Your task to perform on an android device: Is it going to rain this weekend? Image 0: 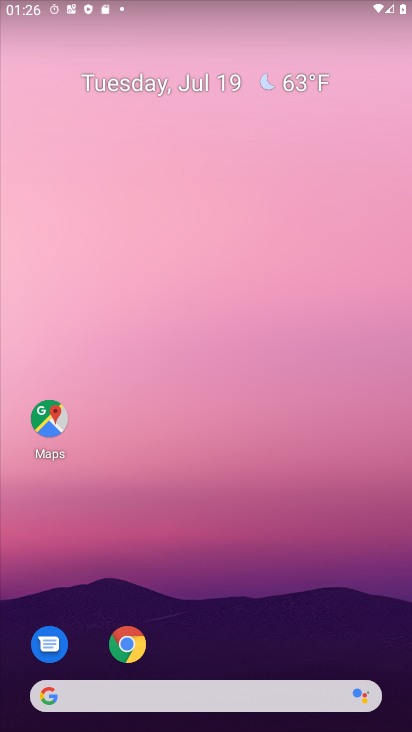
Step 0: drag from (224, 726) to (236, 202)
Your task to perform on an android device: Is it going to rain this weekend? Image 1: 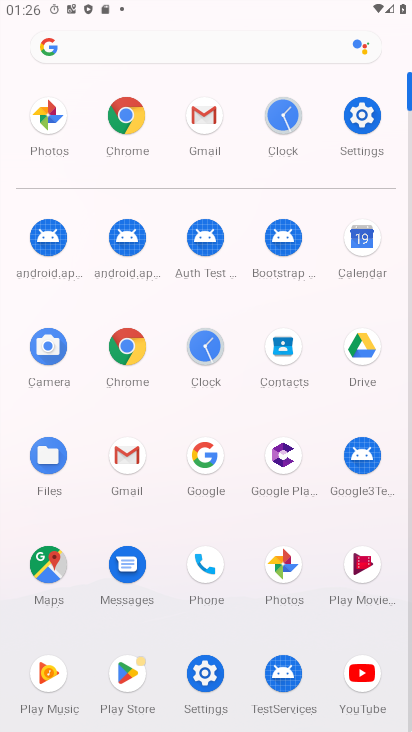
Step 1: click (198, 460)
Your task to perform on an android device: Is it going to rain this weekend? Image 2: 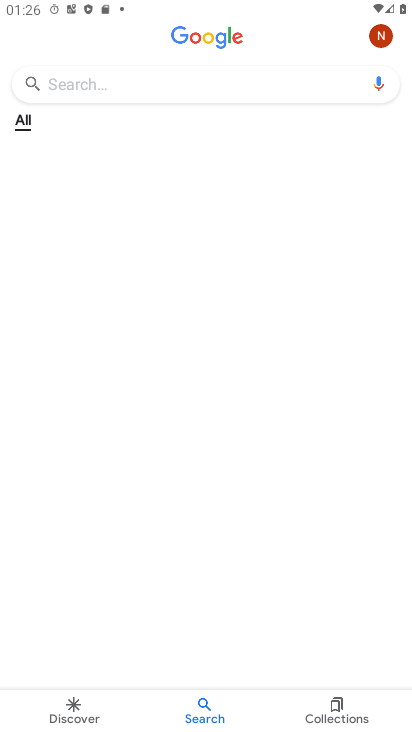
Step 2: click (146, 88)
Your task to perform on an android device: Is it going to rain this weekend? Image 3: 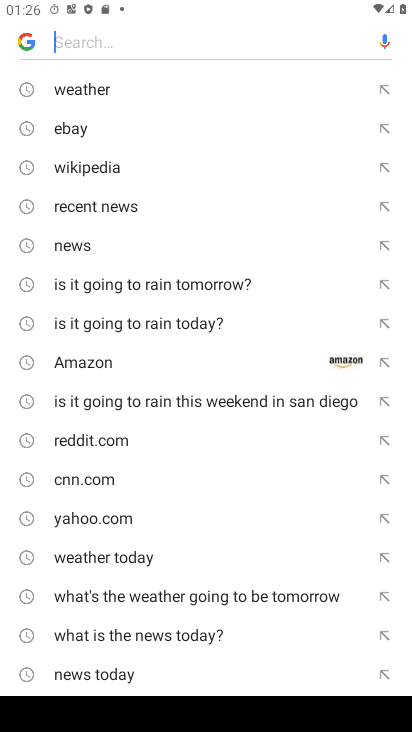
Step 3: click (69, 88)
Your task to perform on an android device: Is it going to rain this weekend? Image 4: 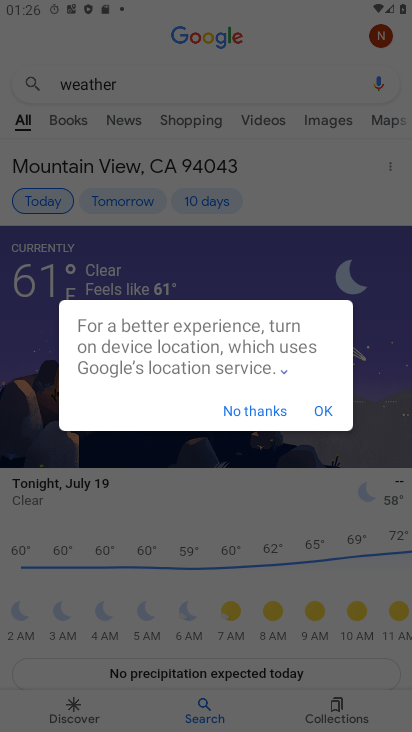
Step 4: click (204, 200)
Your task to perform on an android device: Is it going to rain this weekend? Image 5: 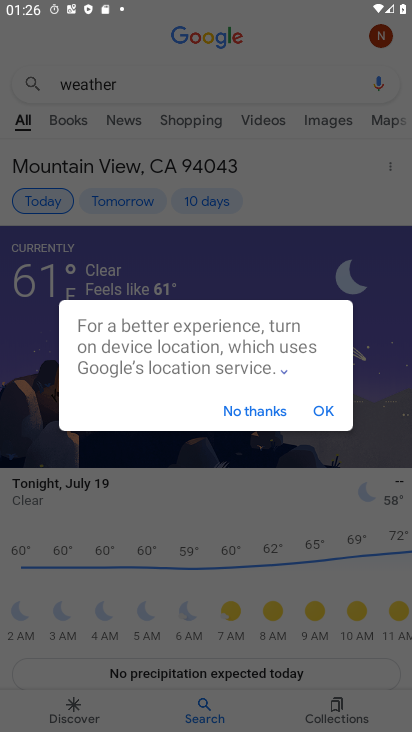
Step 5: click (324, 404)
Your task to perform on an android device: Is it going to rain this weekend? Image 6: 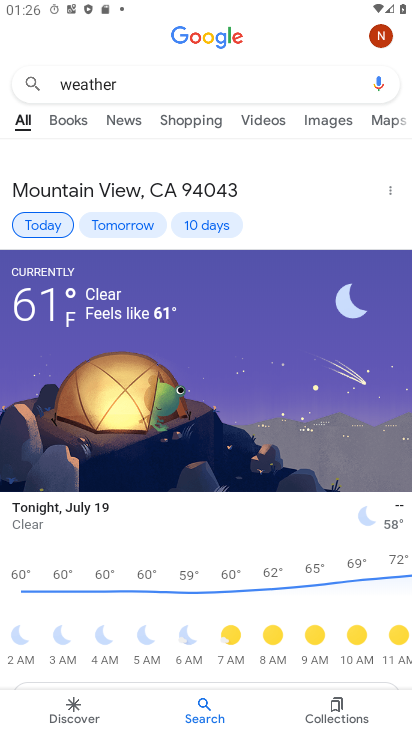
Step 6: click (213, 199)
Your task to perform on an android device: Is it going to rain this weekend? Image 7: 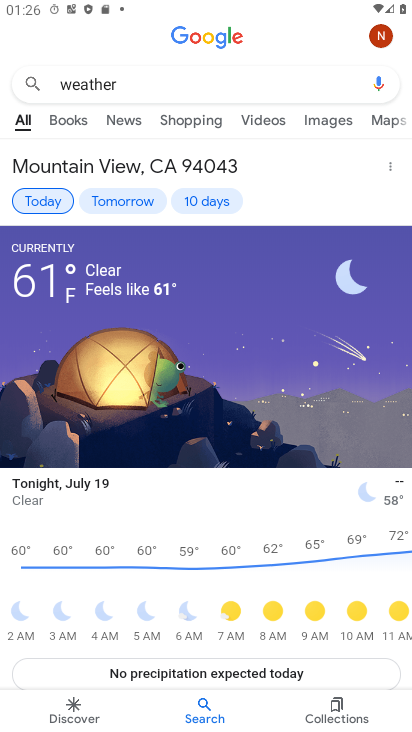
Step 7: click (202, 202)
Your task to perform on an android device: Is it going to rain this weekend? Image 8: 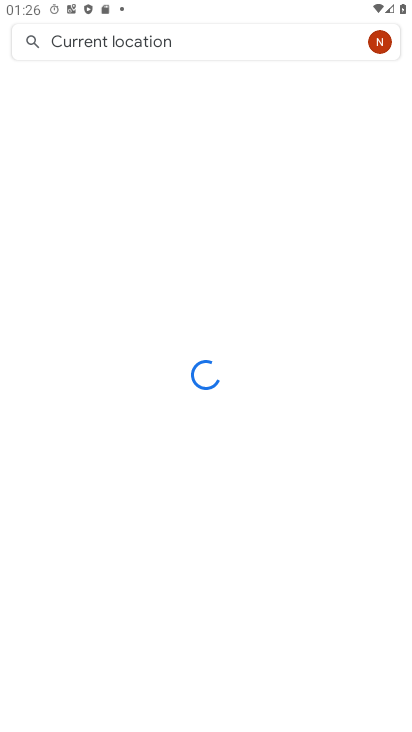
Step 8: click (199, 201)
Your task to perform on an android device: Is it going to rain this weekend? Image 9: 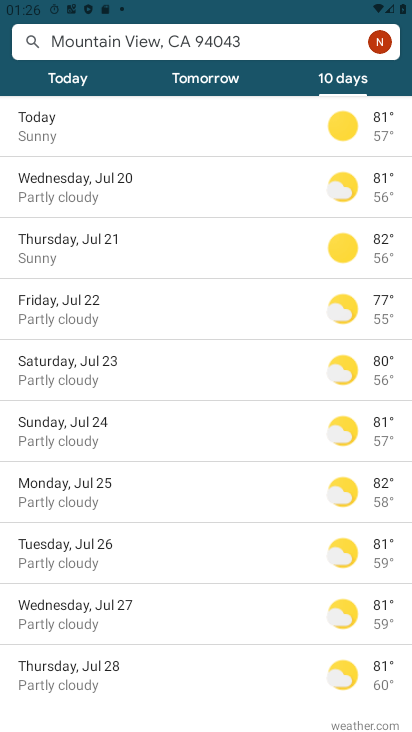
Step 9: click (86, 362)
Your task to perform on an android device: Is it going to rain this weekend? Image 10: 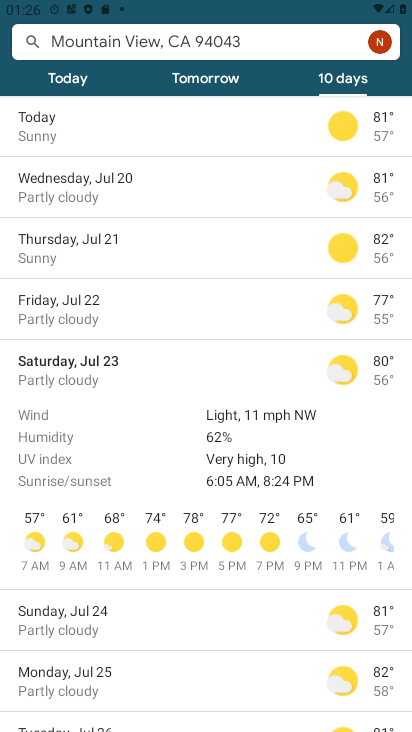
Step 10: task complete